Your task to perform on an android device: empty trash in the gmail app Image 0: 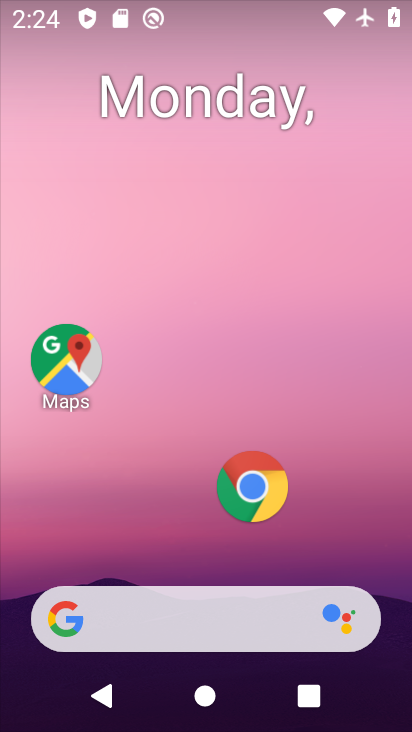
Step 0: drag from (163, 530) to (246, 77)
Your task to perform on an android device: empty trash in the gmail app Image 1: 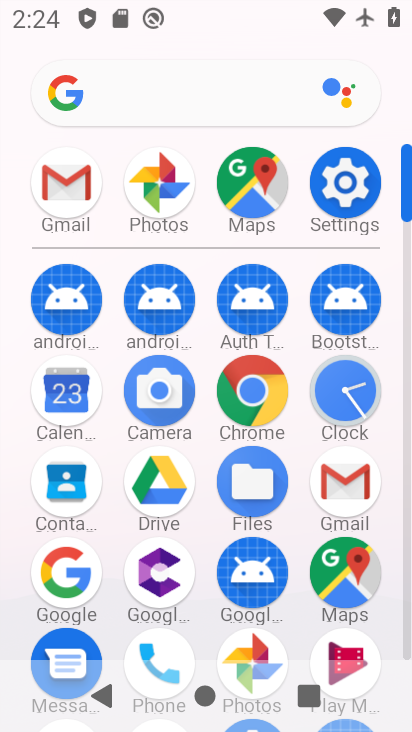
Step 1: click (360, 478)
Your task to perform on an android device: empty trash in the gmail app Image 2: 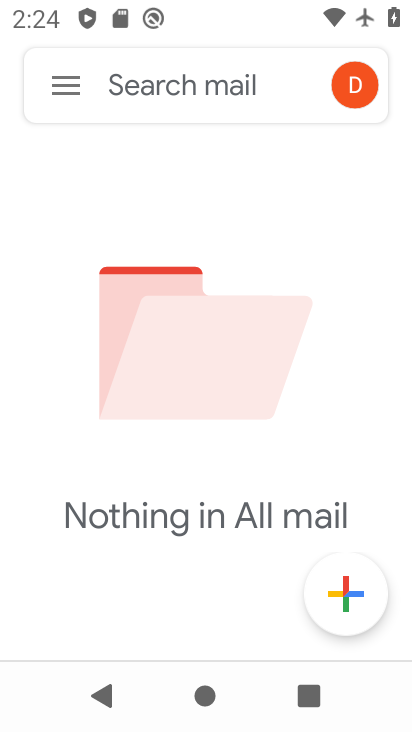
Step 2: click (62, 85)
Your task to perform on an android device: empty trash in the gmail app Image 3: 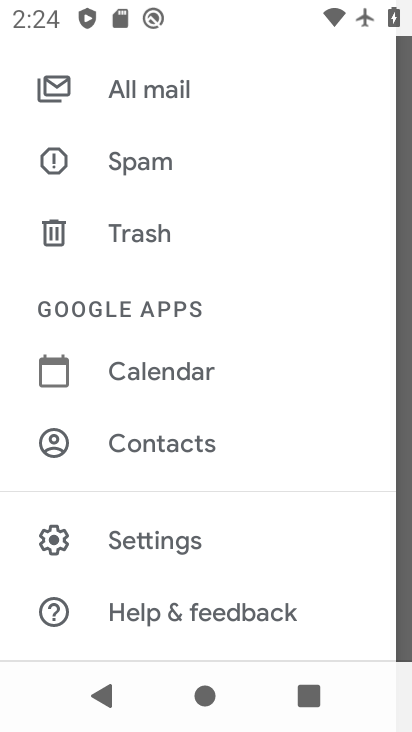
Step 3: click (156, 215)
Your task to perform on an android device: empty trash in the gmail app Image 4: 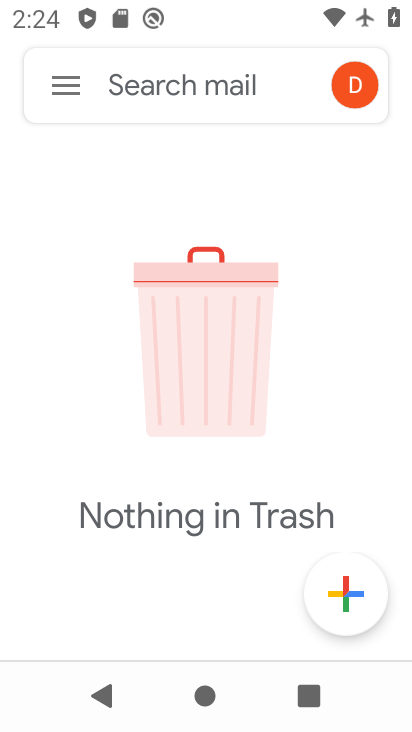
Step 4: task complete